Your task to perform on an android device: remove spam from my inbox in the gmail app Image 0: 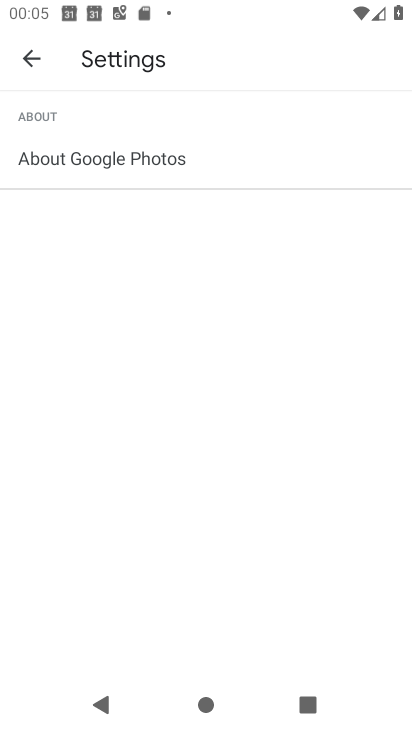
Step 0: press home button
Your task to perform on an android device: remove spam from my inbox in the gmail app Image 1: 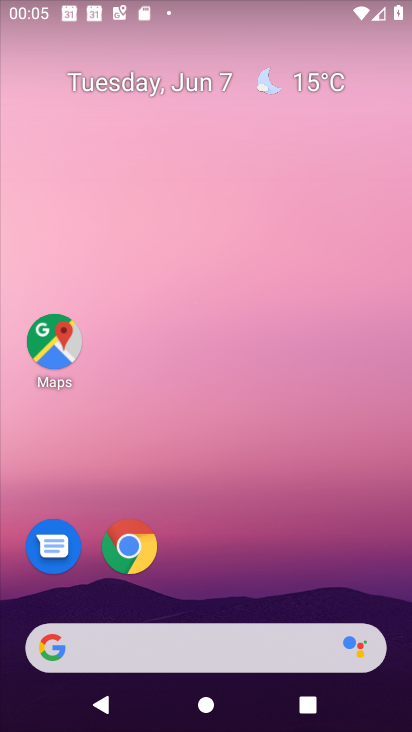
Step 1: drag from (193, 580) to (299, 100)
Your task to perform on an android device: remove spam from my inbox in the gmail app Image 2: 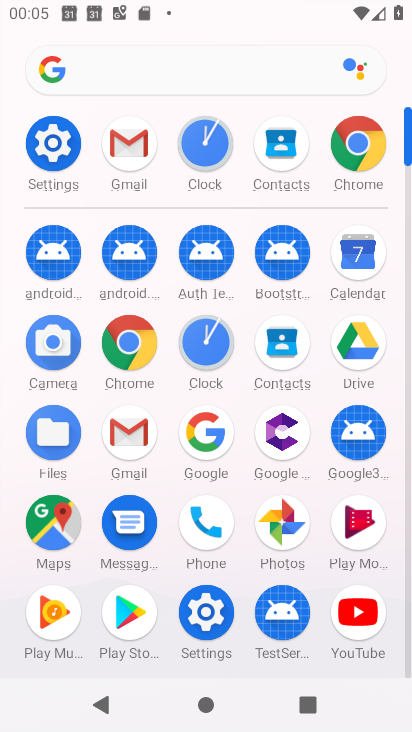
Step 2: click (137, 449)
Your task to perform on an android device: remove spam from my inbox in the gmail app Image 3: 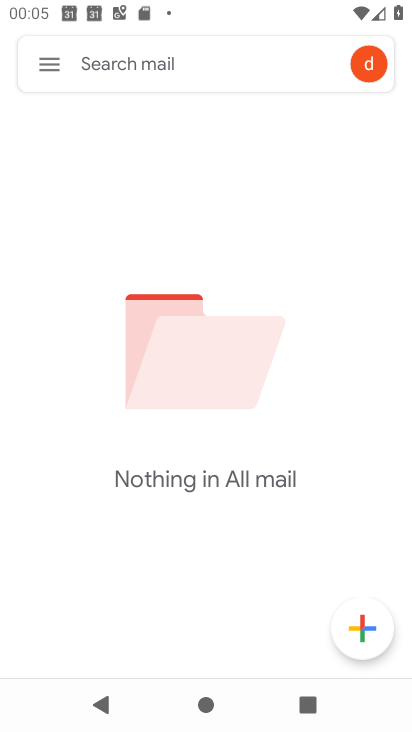
Step 3: click (50, 64)
Your task to perform on an android device: remove spam from my inbox in the gmail app Image 4: 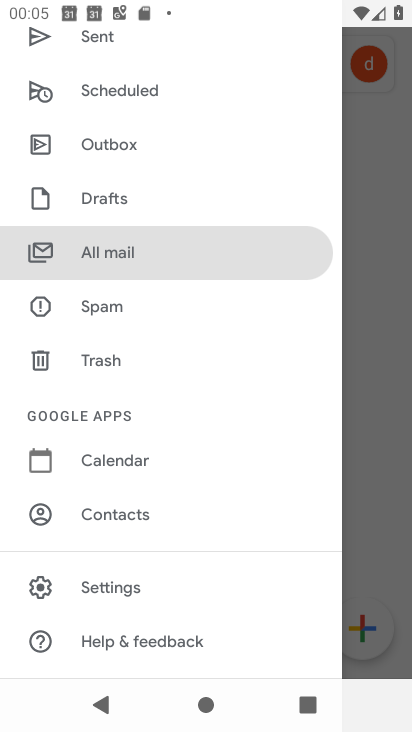
Step 4: click (109, 313)
Your task to perform on an android device: remove spam from my inbox in the gmail app Image 5: 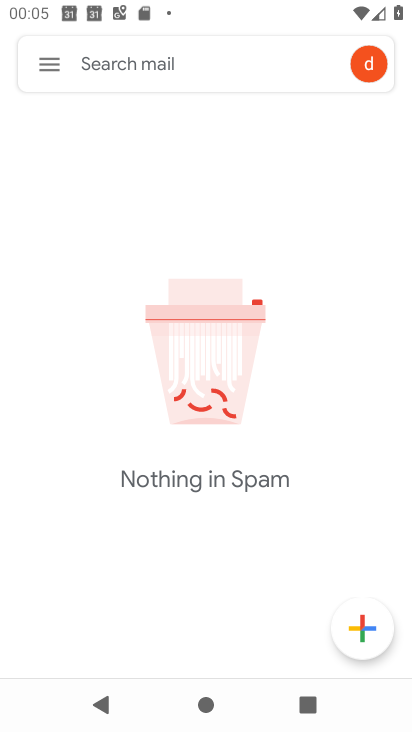
Step 5: task complete